Your task to perform on an android device: Search for seafood restaurants on Google Maps Image 0: 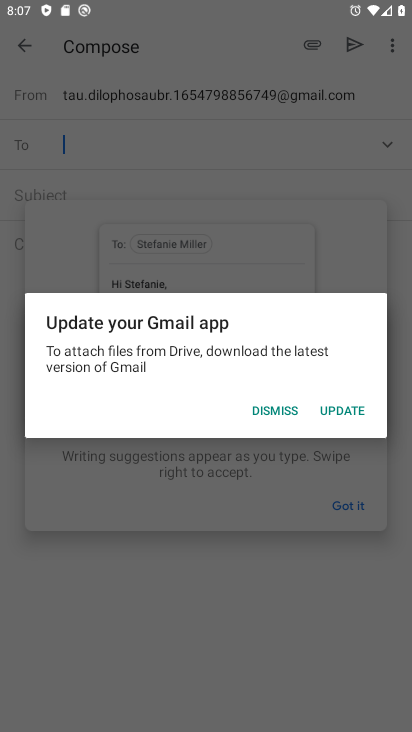
Step 0: press home button
Your task to perform on an android device: Search for seafood restaurants on Google Maps Image 1: 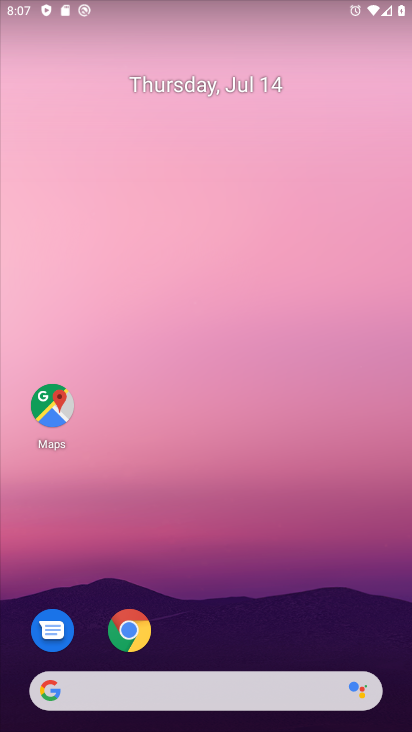
Step 1: drag from (210, 703) to (214, 451)
Your task to perform on an android device: Search for seafood restaurants on Google Maps Image 2: 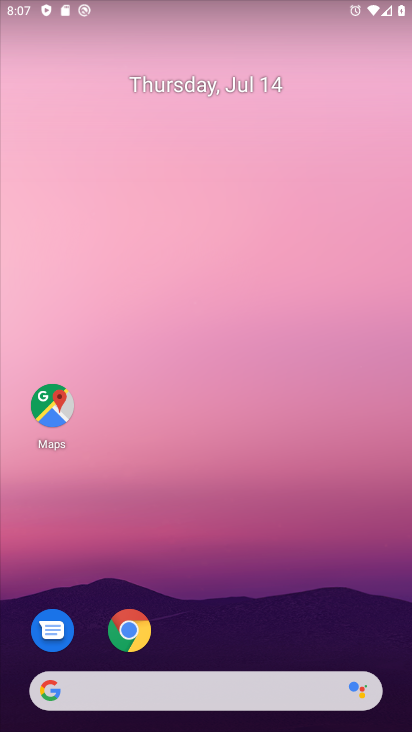
Step 2: drag from (269, 654) to (272, 27)
Your task to perform on an android device: Search for seafood restaurants on Google Maps Image 3: 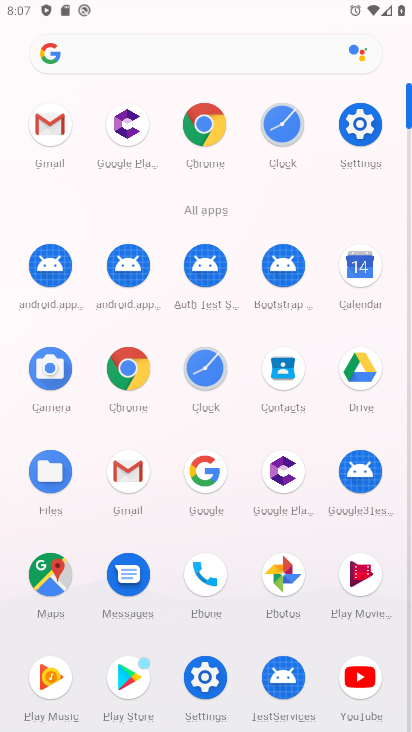
Step 3: click (47, 574)
Your task to perform on an android device: Search for seafood restaurants on Google Maps Image 4: 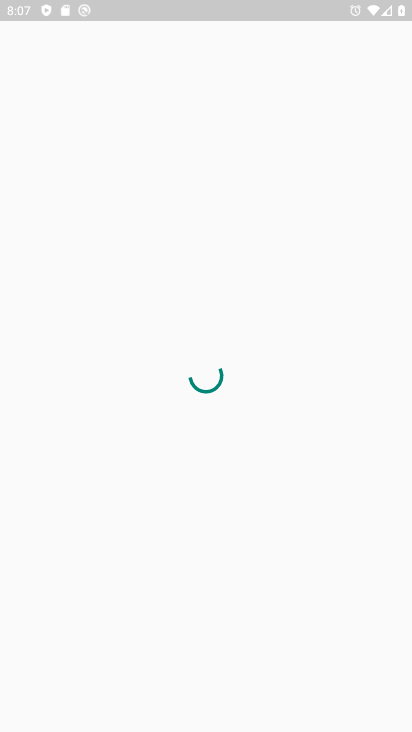
Step 4: click (265, 403)
Your task to perform on an android device: Search for seafood restaurants on Google Maps Image 5: 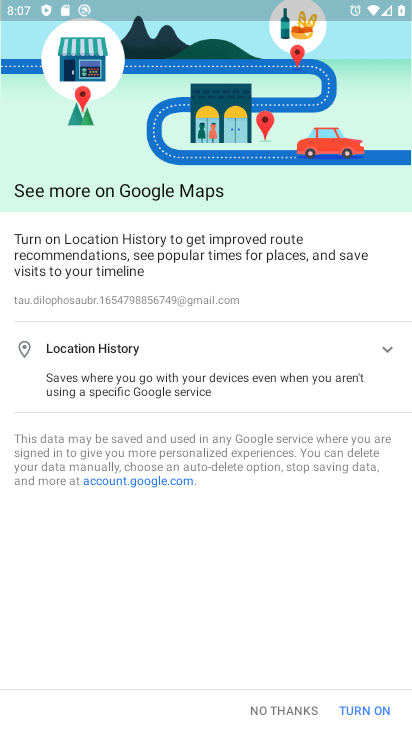
Step 5: click (275, 710)
Your task to perform on an android device: Search for seafood restaurants on Google Maps Image 6: 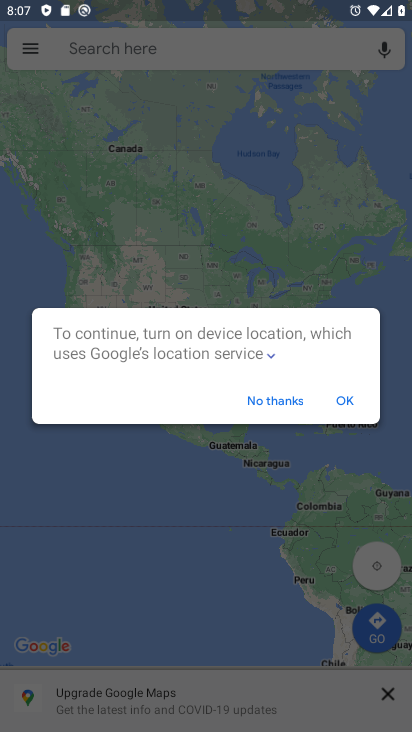
Step 6: click (287, 400)
Your task to perform on an android device: Search for seafood restaurants on Google Maps Image 7: 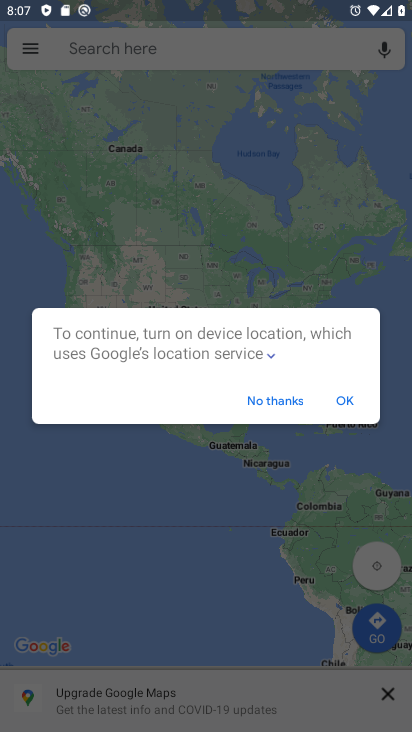
Step 7: click (287, 400)
Your task to perform on an android device: Search for seafood restaurants on Google Maps Image 8: 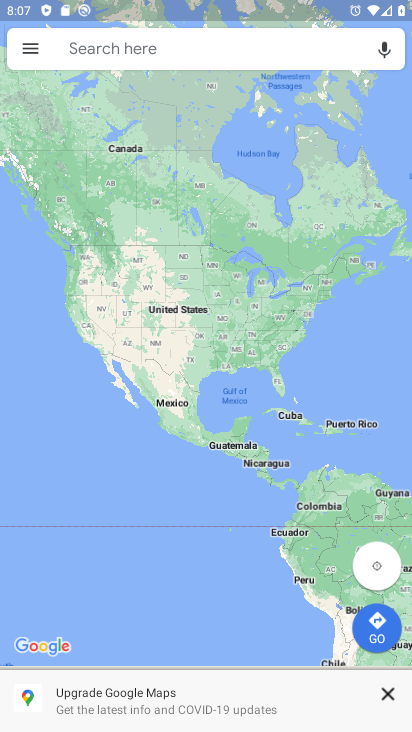
Step 8: click (204, 40)
Your task to perform on an android device: Search for seafood restaurants on Google Maps Image 9: 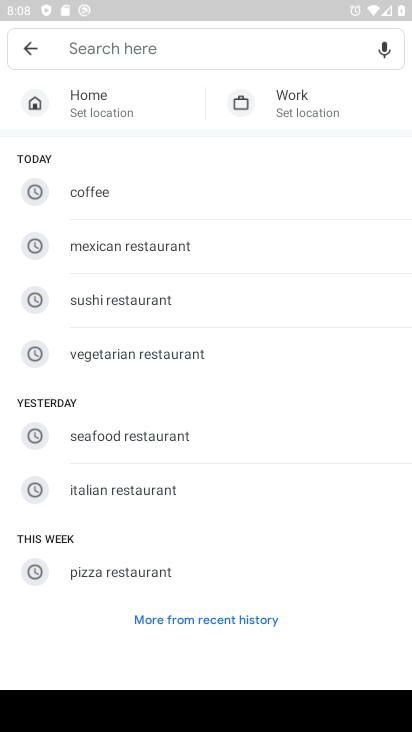
Step 9: type "seafood restaurants"
Your task to perform on an android device: Search for seafood restaurants on Google Maps Image 10: 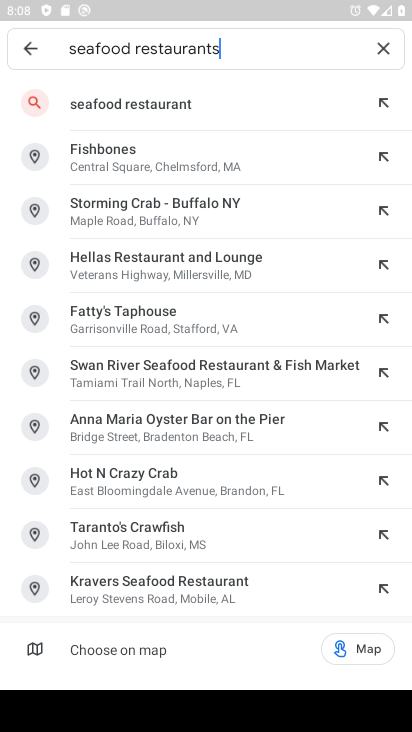
Step 10: click (172, 101)
Your task to perform on an android device: Search for seafood restaurants on Google Maps Image 11: 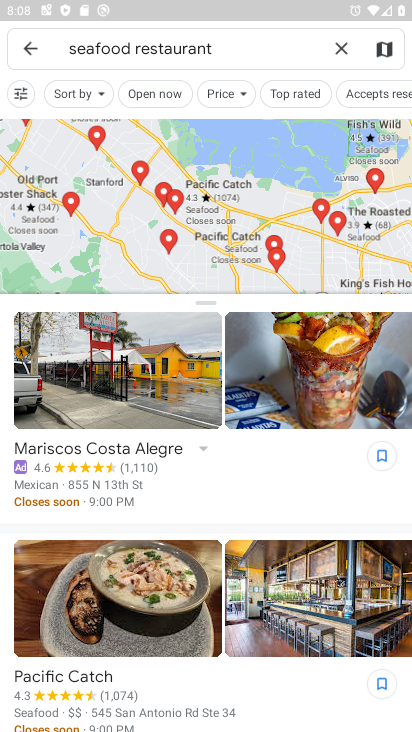
Step 11: task complete